Your task to perform on an android device: View the shopping cart on walmart. Search for "razer thresher" on walmart, select the first entry, and add it to the cart. Image 0: 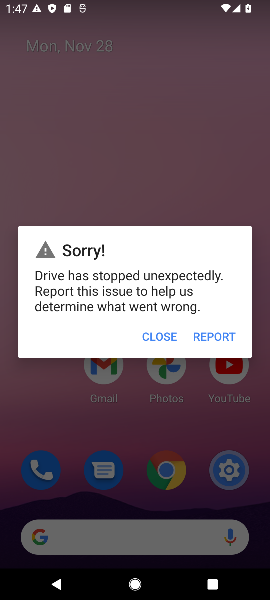
Step 0: task complete